Your task to perform on an android device: snooze an email in the gmail app Image 0: 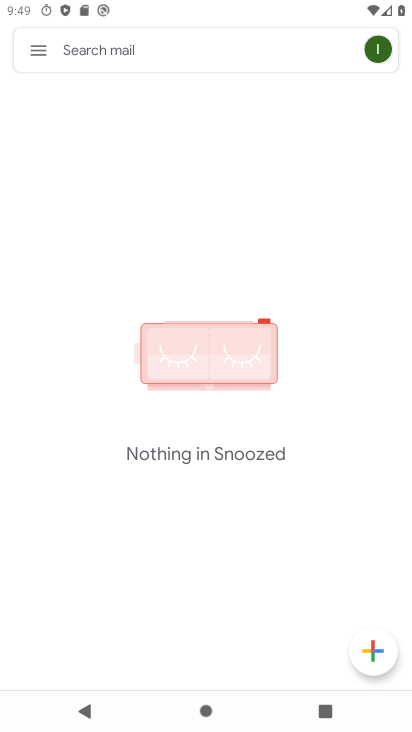
Step 0: press home button
Your task to perform on an android device: snooze an email in the gmail app Image 1: 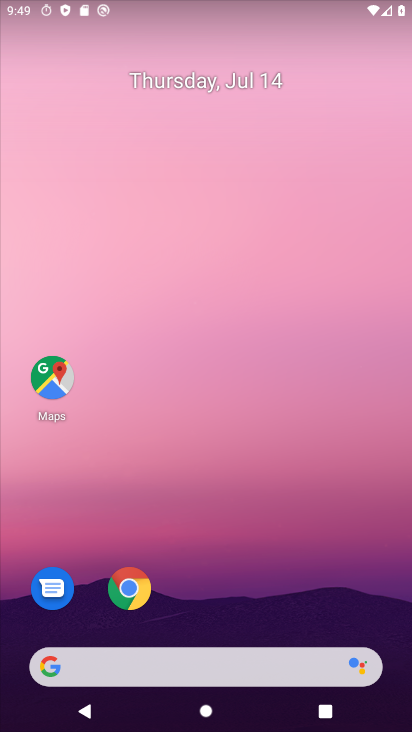
Step 1: drag from (110, 668) to (107, 320)
Your task to perform on an android device: snooze an email in the gmail app Image 2: 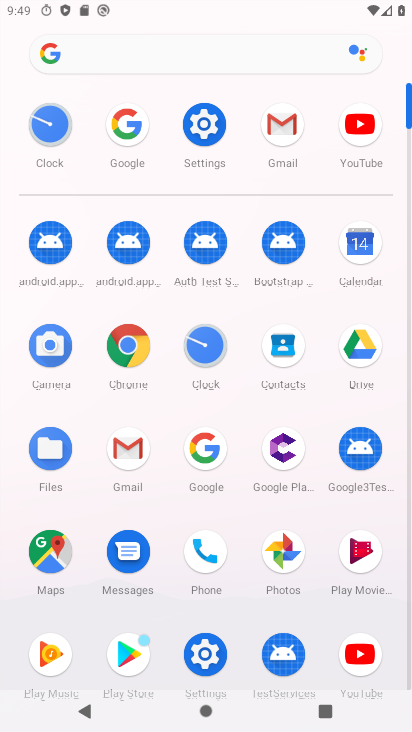
Step 2: click (128, 450)
Your task to perform on an android device: snooze an email in the gmail app Image 3: 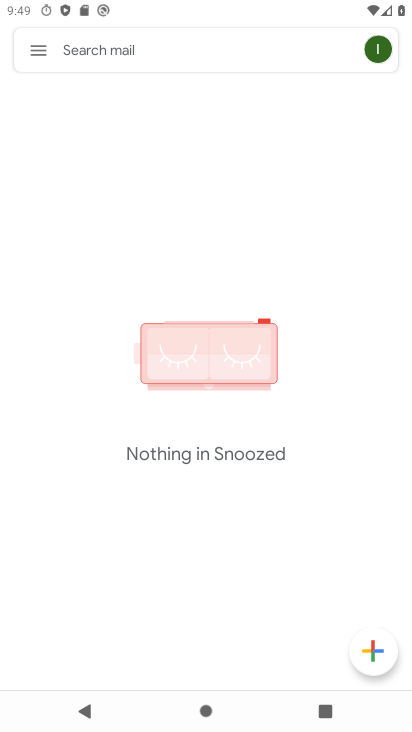
Step 3: click (31, 43)
Your task to perform on an android device: snooze an email in the gmail app Image 4: 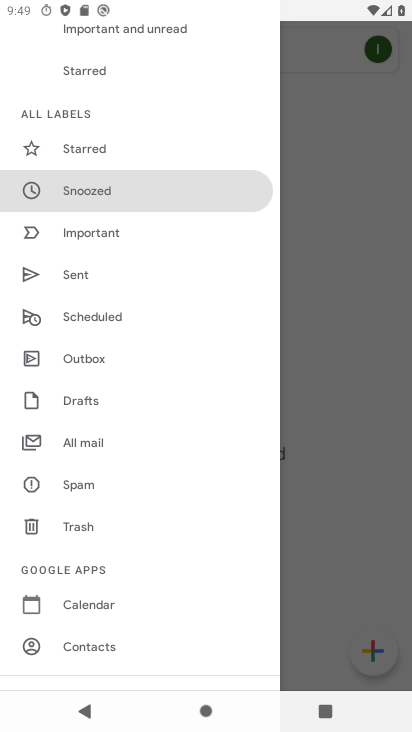
Step 4: click (63, 194)
Your task to perform on an android device: snooze an email in the gmail app Image 5: 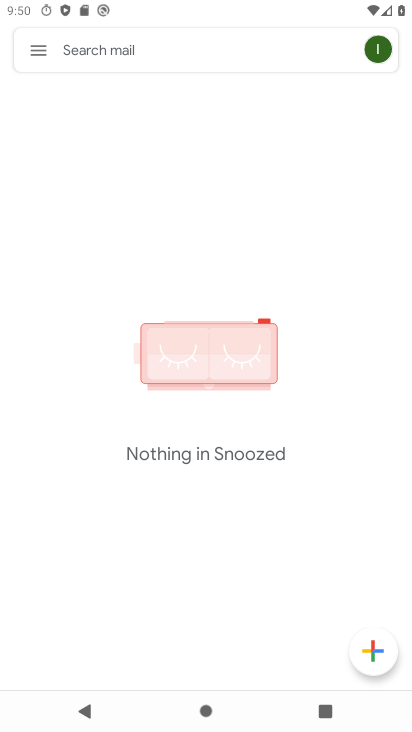
Step 5: task complete